Your task to perform on an android device: change the clock style Image 0: 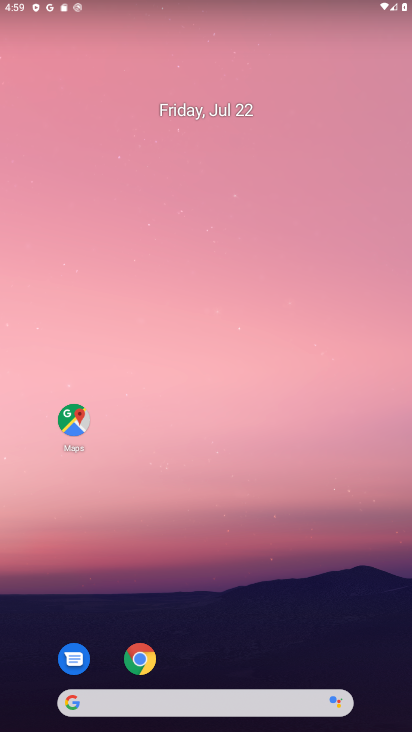
Step 0: press home button
Your task to perform on an android device: change the clock style Image 1: 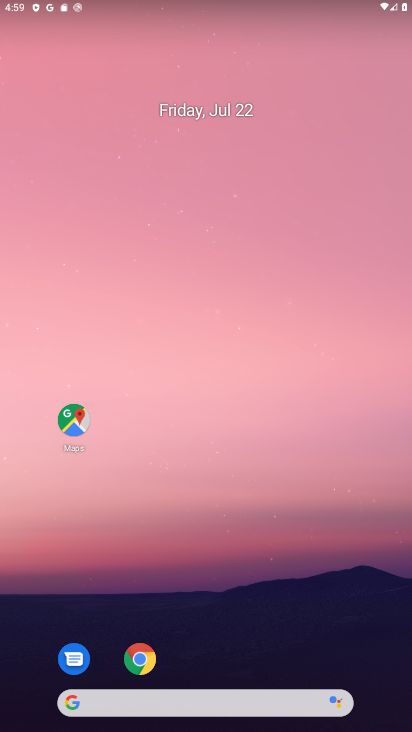
Step 1: drag from (217, 673) to (247, 10)
Your task to perform on an android device: change the clock style Image 2: 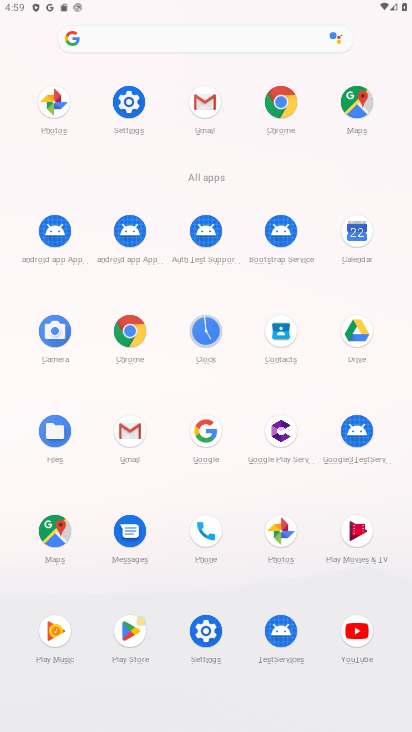
Step 2: click (205, 325)
Your task to perform on an android device: change the clock style Image 3: 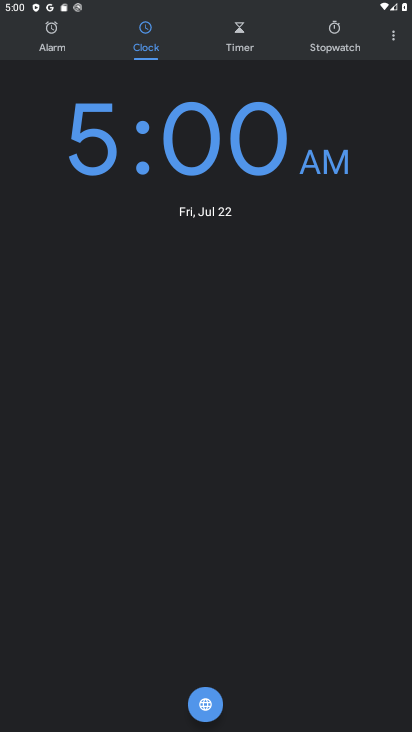
Step 3: click (394, 36)
Your task to perform on an android device: change the clock style Image 4: 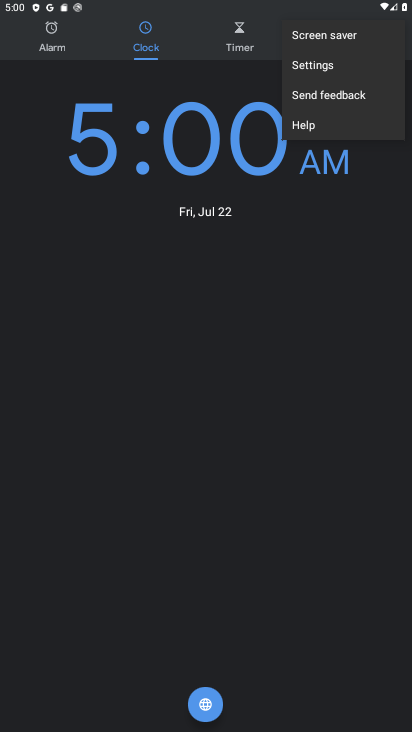
Step 4: click (340, 66)
Your task to perform on an android device: change the clock style Image 5: 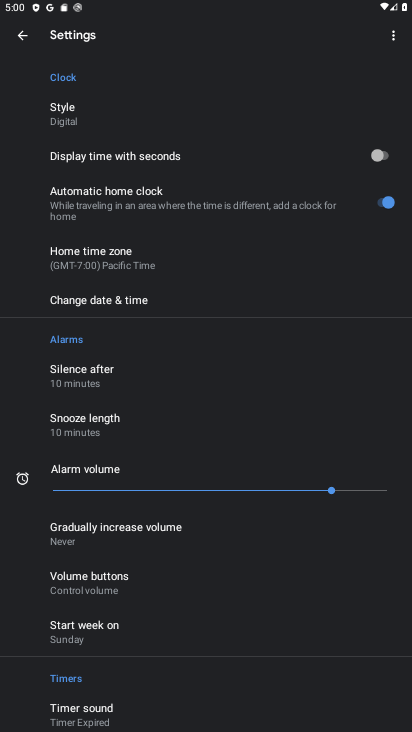
Step 5: click (109, 116)
Your task to perform on an android device: change the clock style Image 6: 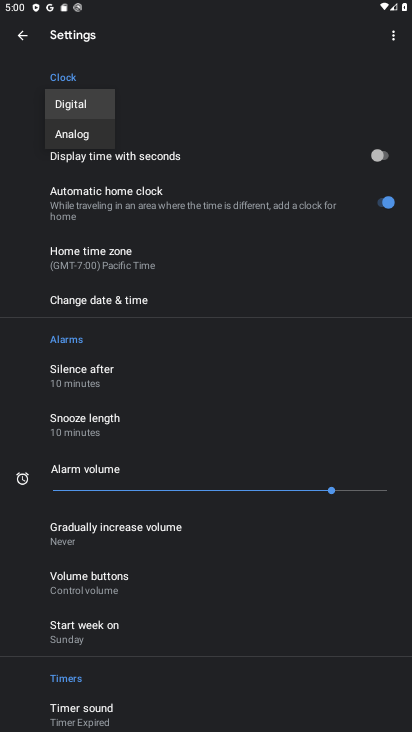
Step 6: click (88, 137)
Your task to perform on an android device: change the clock style Image 7: 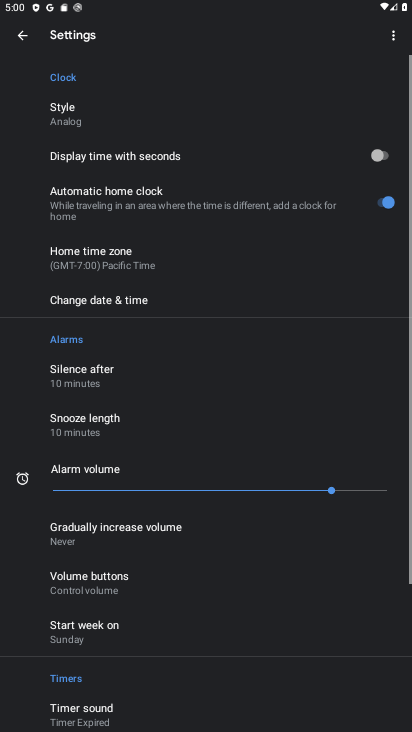
Step 7: task complete